Your task to perform on an android device: see creations saved in the google photos Image 0: 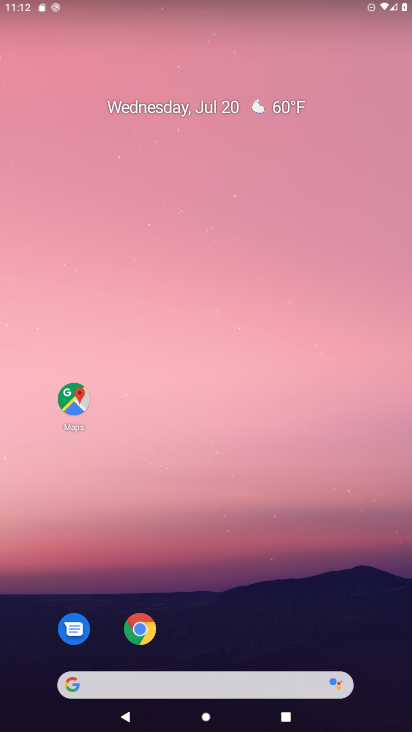
Step 0: drag from (216, 608) to (277, 155)
Your task to perform on an android device: see creations saved in the google photos Image 1: 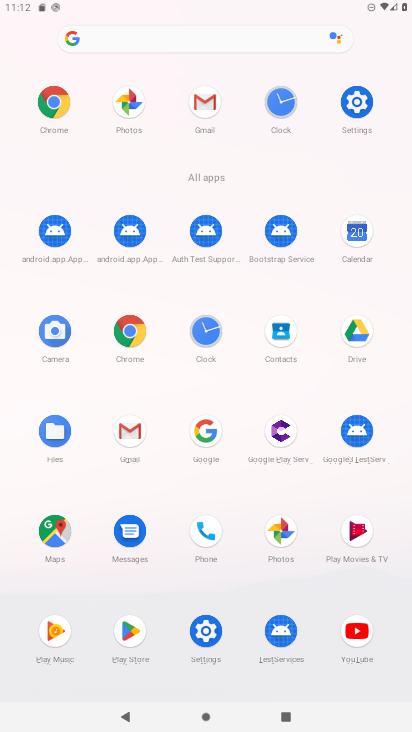
Step 1: click (273, 542)
Your task to perform on an android device: see creations saved in the google photos Image 2: 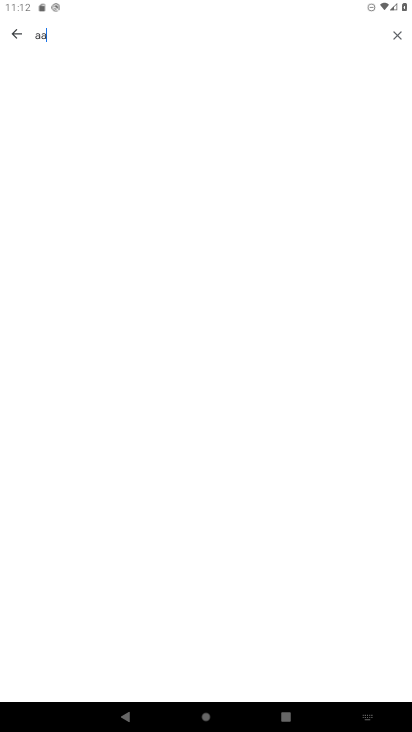
Step 2: click (14, 29)
Your task to perform on an android device: see creations saved in the google photos Image 3: 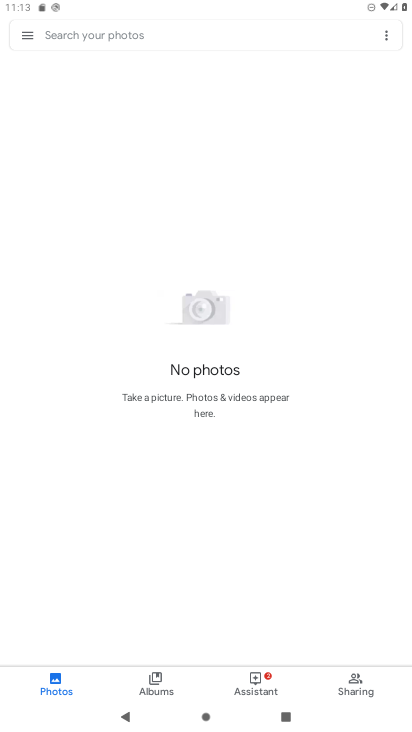
Step 3: click (104, 36)
Your task to perform on an android device: see creations saved in the google photos Image 4: 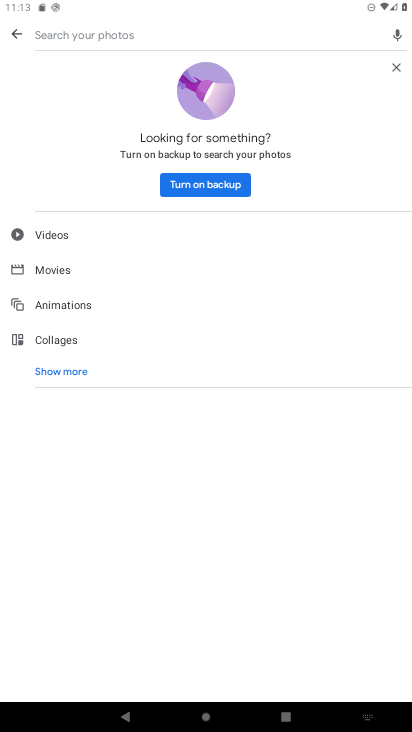
Step 4: click (73, 369)
Your task to perform on an android device: see creations saved in the google photos Image 5: 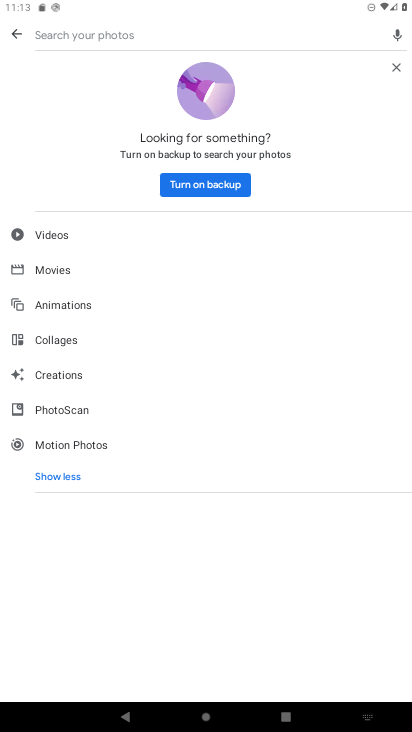
Step 5: click (47, 375)
Your task to perform on an android device: see creations saved in the google photos Image 6: 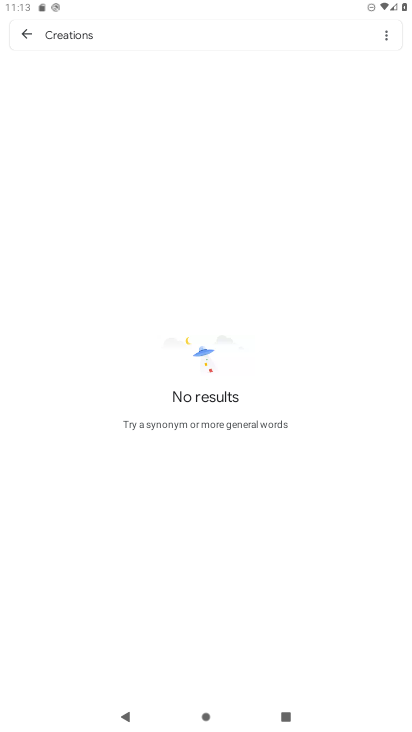
Step 6: task complete